Your task to perform on an android device: Find coffee shops on Maps Image 0: 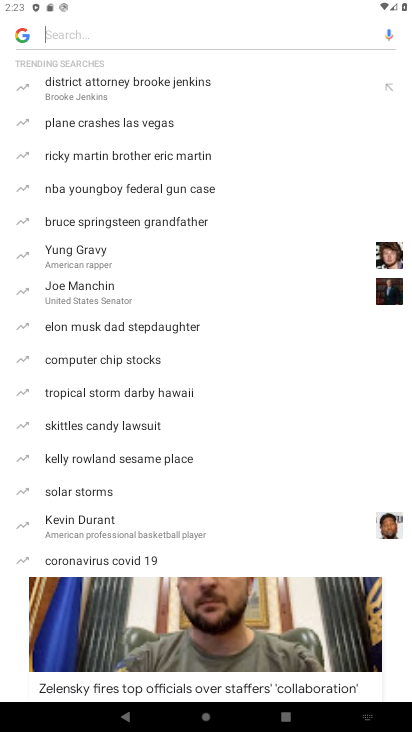
Step 0: press home button
Your task to perform on an android device: Find coffee shops on Maps Image 1: 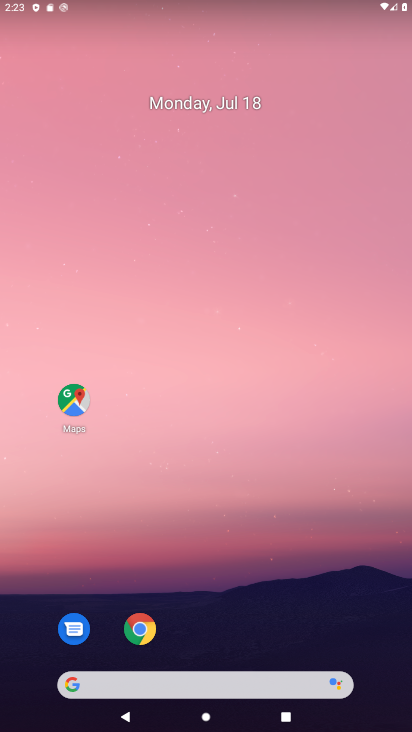
Step 1: click (71, 386)
Your task to perform on an android device: Find coffee shops on Maps Image 2: 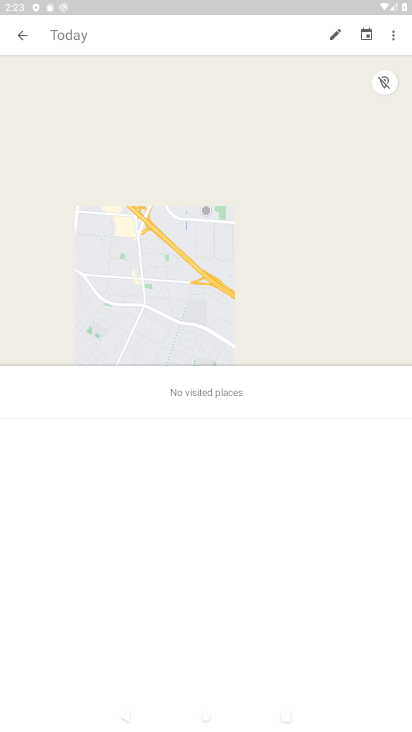
Step 2: click (18, 26)
Your task to perform on an android device: Find coffee shops on Maps Image 3: 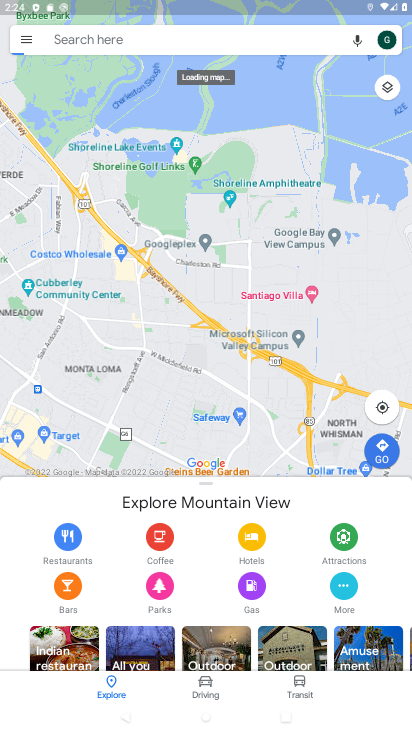
Step 3: task complete